Your task to perform on an android device: change text size in settings app Image 0: 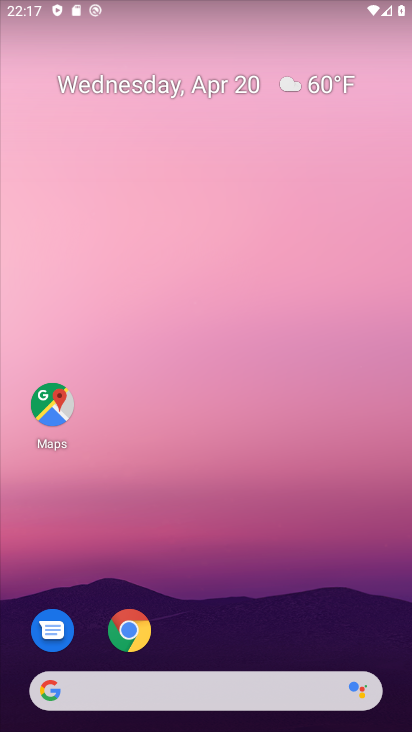
Step 0: drag from (281, 651) to (226, 242)
Your task to perform on an android device: change text size in settings app Image 1: 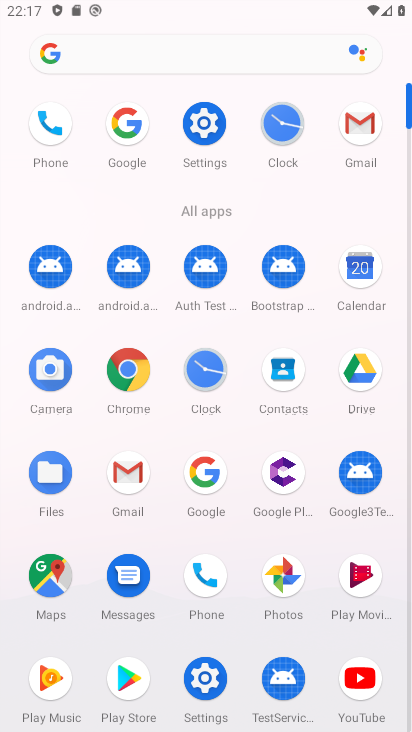
Step 1: click (198, 125)
Your task to perform on an android device: change text size in settings app Image 2: 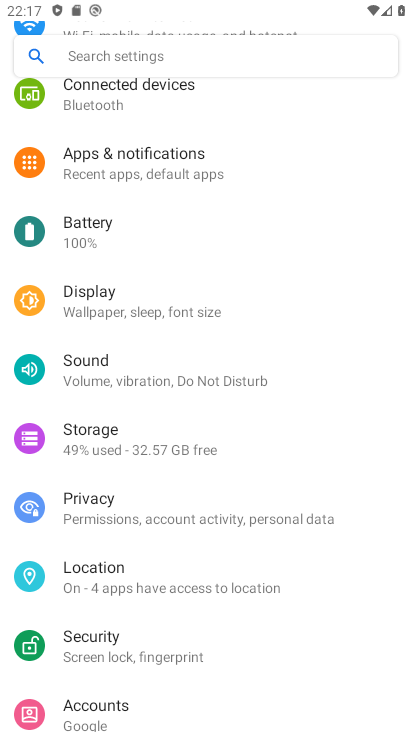
Step 2: click (173, 298)
Your task to perform on an android device: change text size in settings app Image 3: 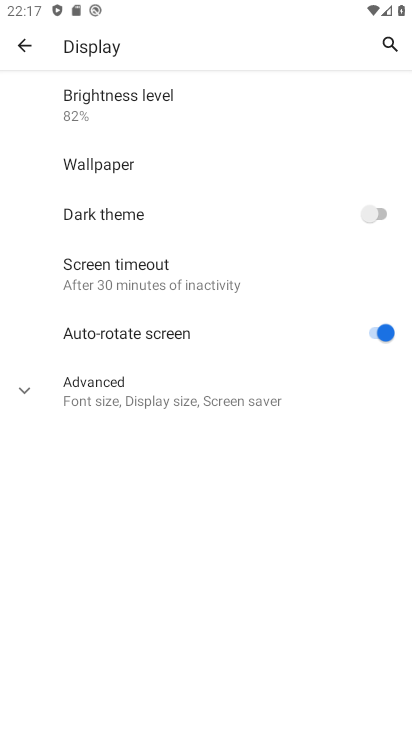
Step 3: click (143, 372)
Your task to perform on an android device: change text size in settings app Image 4: 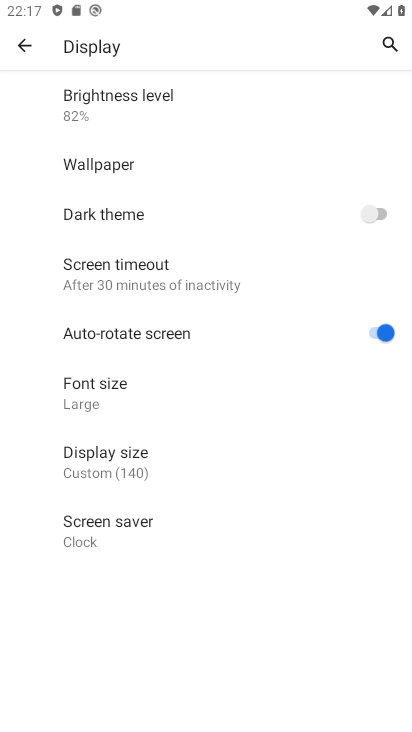
Step 4: click (148, 406)
Your task to perform on an android device: change text size in settings app Image 5: 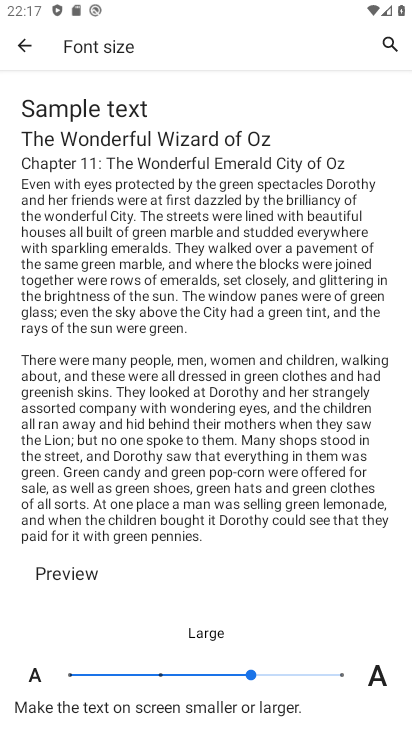
Step 5: click (164, 679)
Your task to perform on an android device: change text size in settings app Image 6: 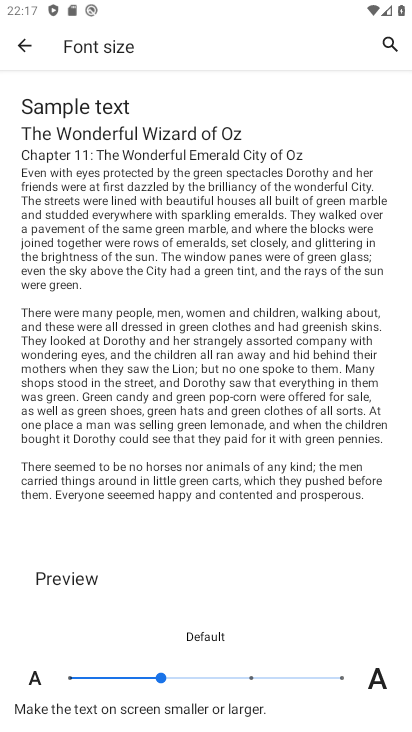
Step 6: task complete